Your task to perform on an android device: Clear the shopping cart on target.com. Image 0: 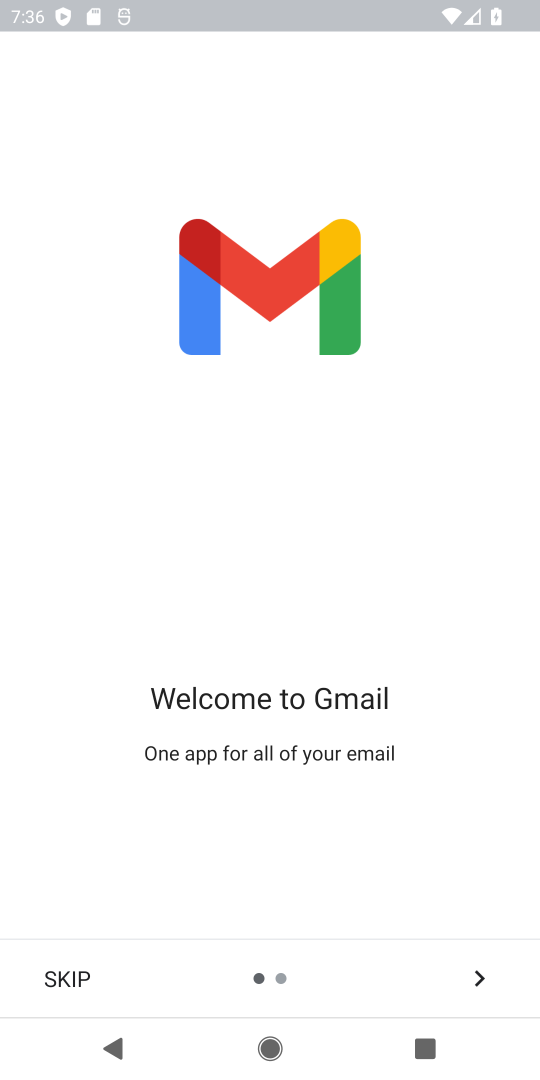
Step 0: press home button
Your task to perform on an android device: Clear the shopping cart on target.com. Image 1: 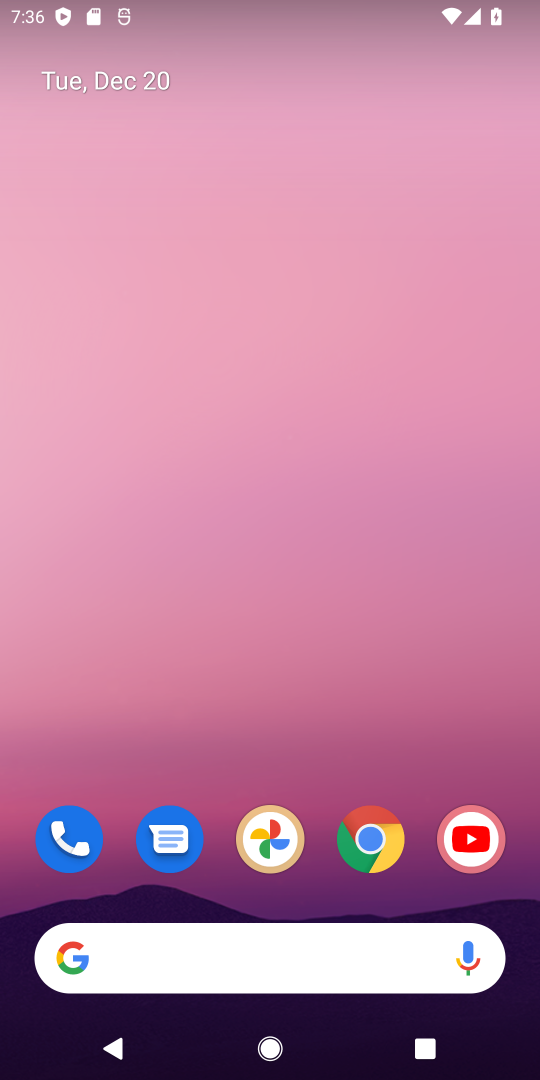
Step 1: click (207, 981)
Your task to perform on an android device: Clear the shopping cart on target.com. Image 2: 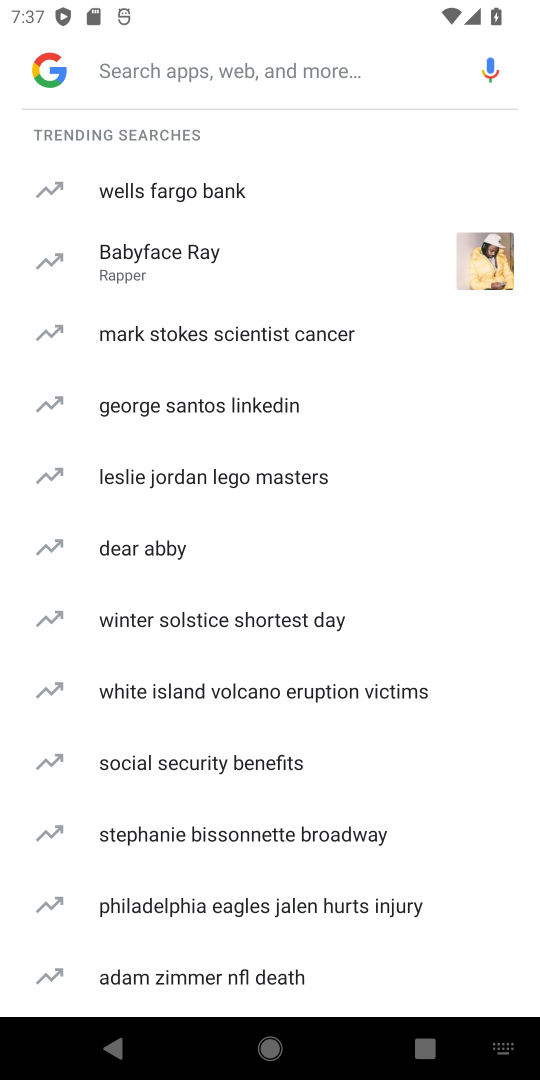
Step 2: type "target.com."
Your task to perform on an android device: Clear the shopping cart on target.com. Image 3: 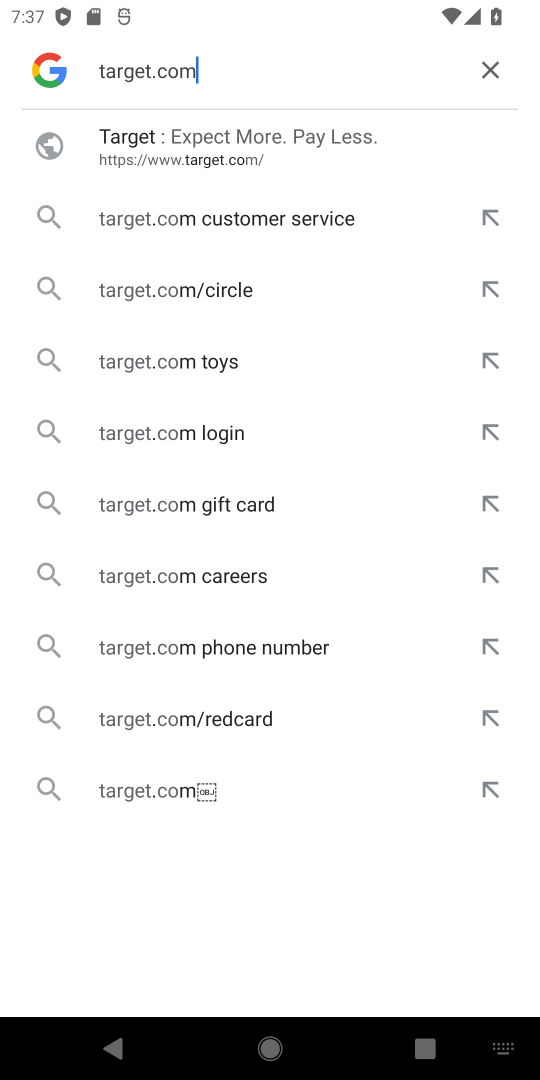
Step 3: type ""
Your task to perform on an android device: Clear the shopping cart on target.com. Image 4: 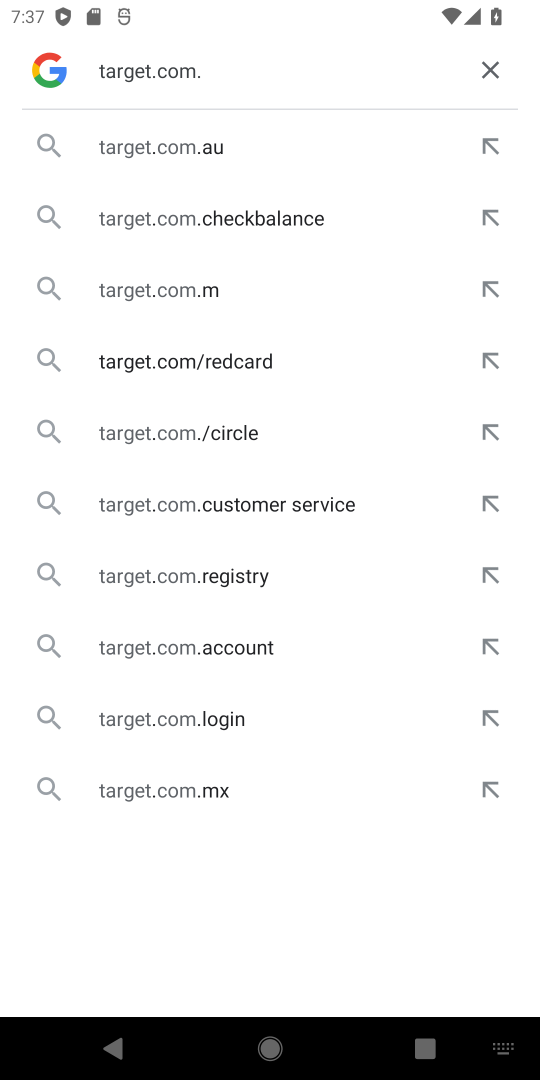
Step 4: click (490, 67)
Your task to perform on an android device: Clear the shopping cart on target.com. Image 5: 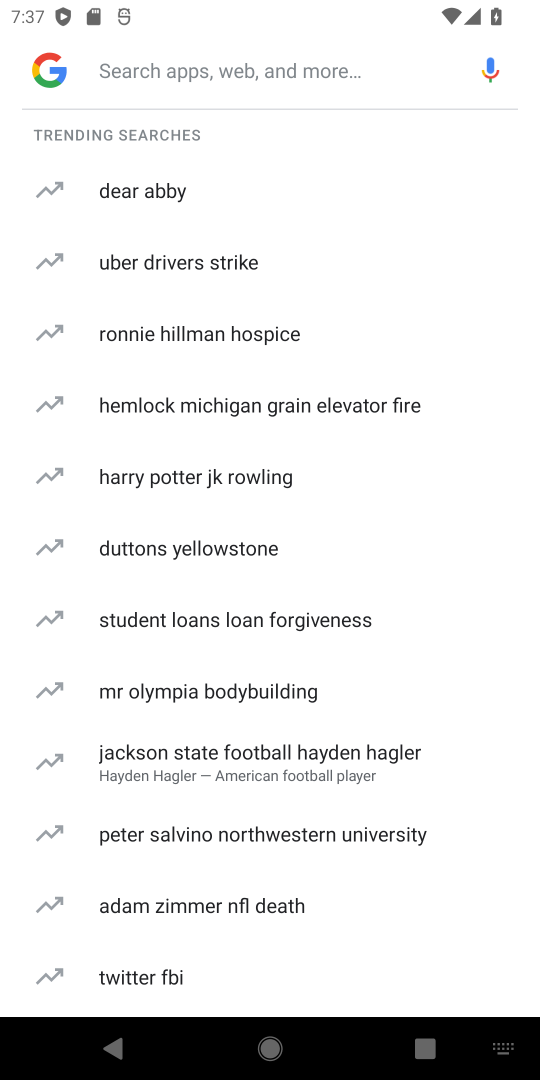
Step 5: type "target.com"
Your task to perform on an android device: Clear the shopping cart on target.com. Image 6: 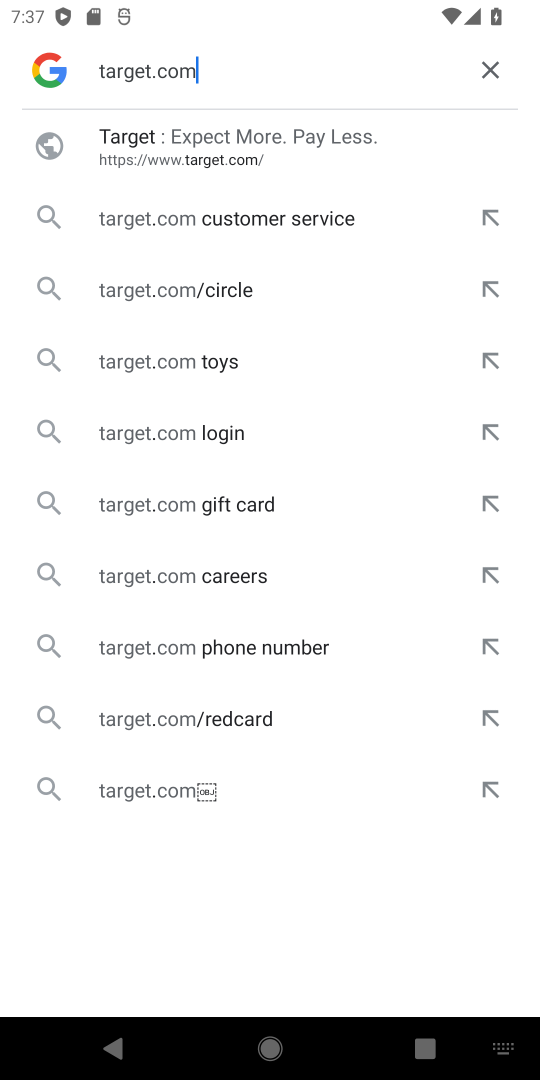
Step 6: click (245, 165)
Your task to perform on an android device: Clear the shopping cart on target.com. Image 7: 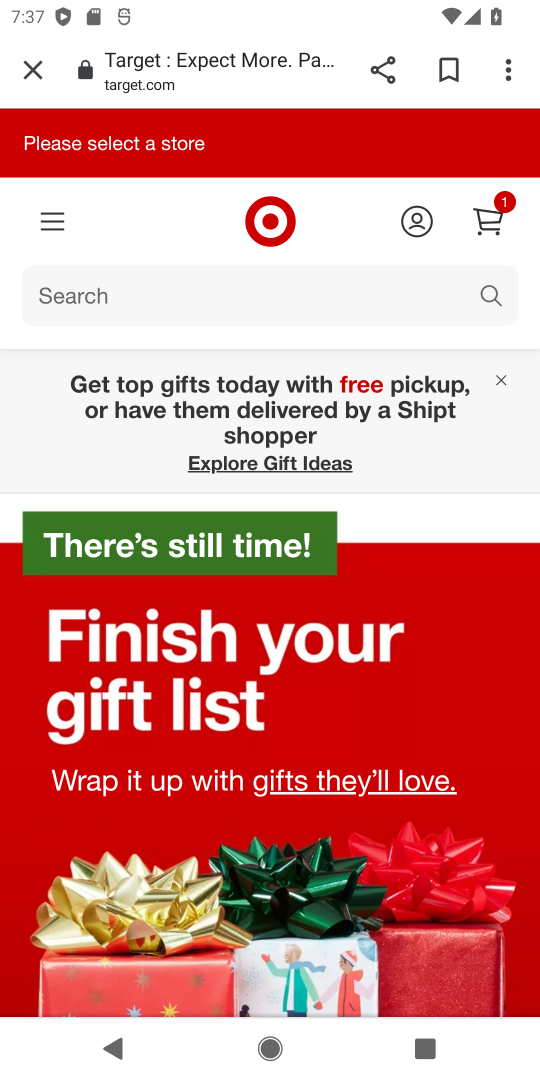
Step 7: click (491, 225)
Your task to perform on an android device: Clear the shopping cart on target.com. Image 8: 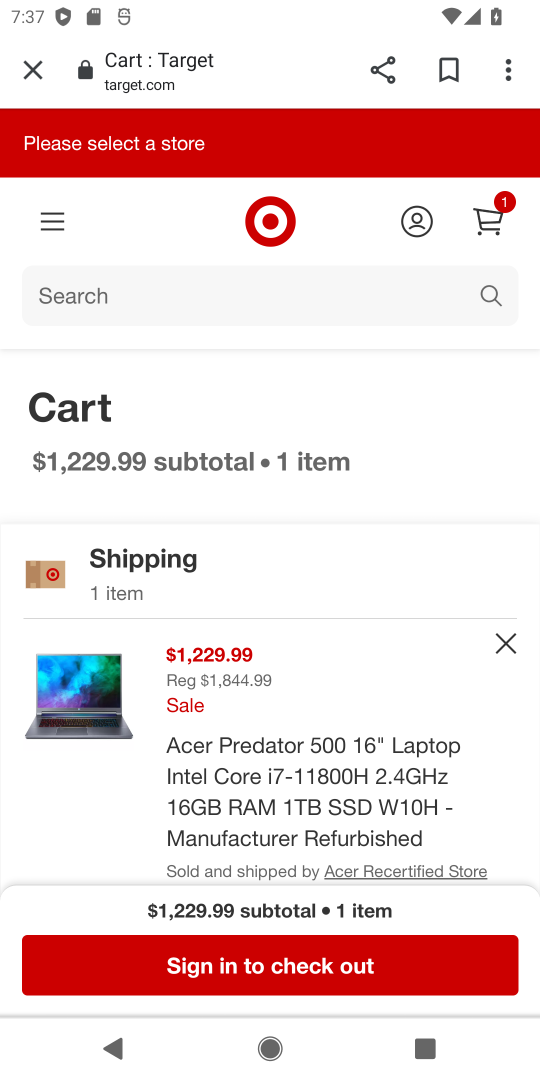
Step 8: click (492, 629)
Your task to perform on an android device: Clear the shopping cart on target.com. Image 9: 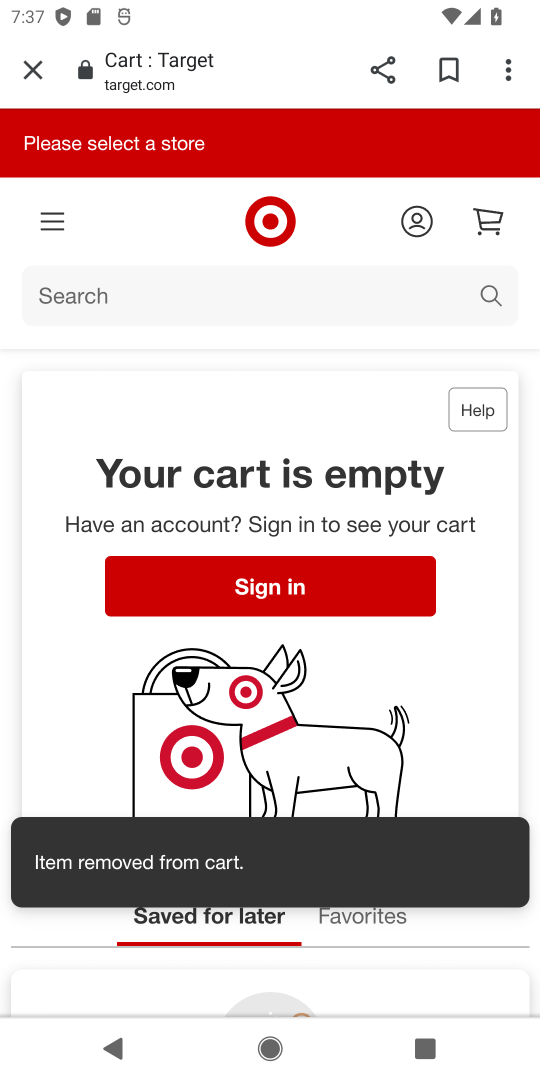
Step 9: task complete